Your task to perform on an android device: uninstall "Instagram" Image 0: 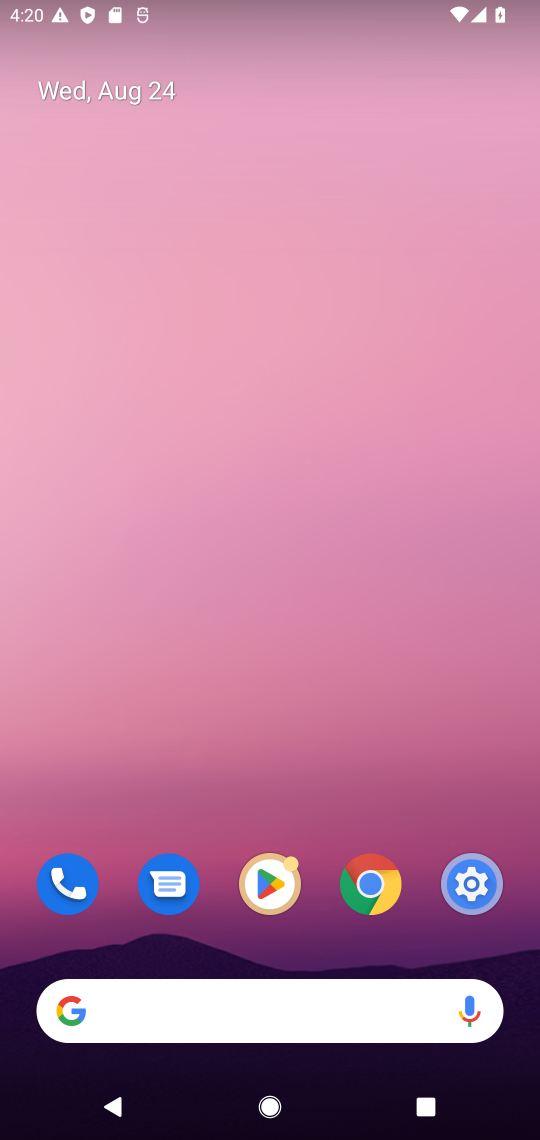
Step 0: click (268, 894)
Your task to perform on an android device: uninstall "Instagram" Image 1: 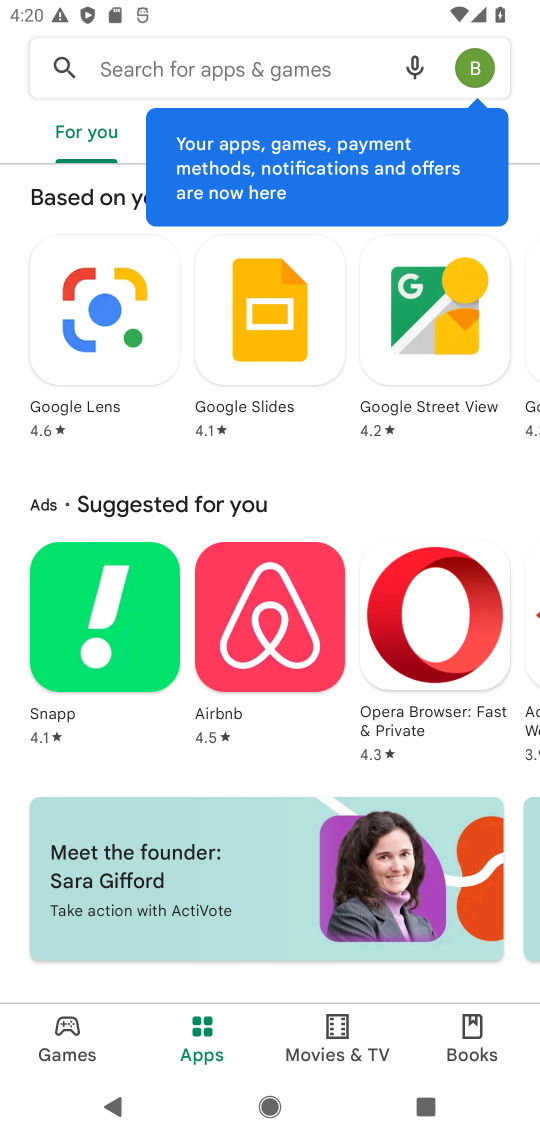
Step 1: click (234, 71)
Your task to perform on an android device: uninstall "Instagram" Image 2: 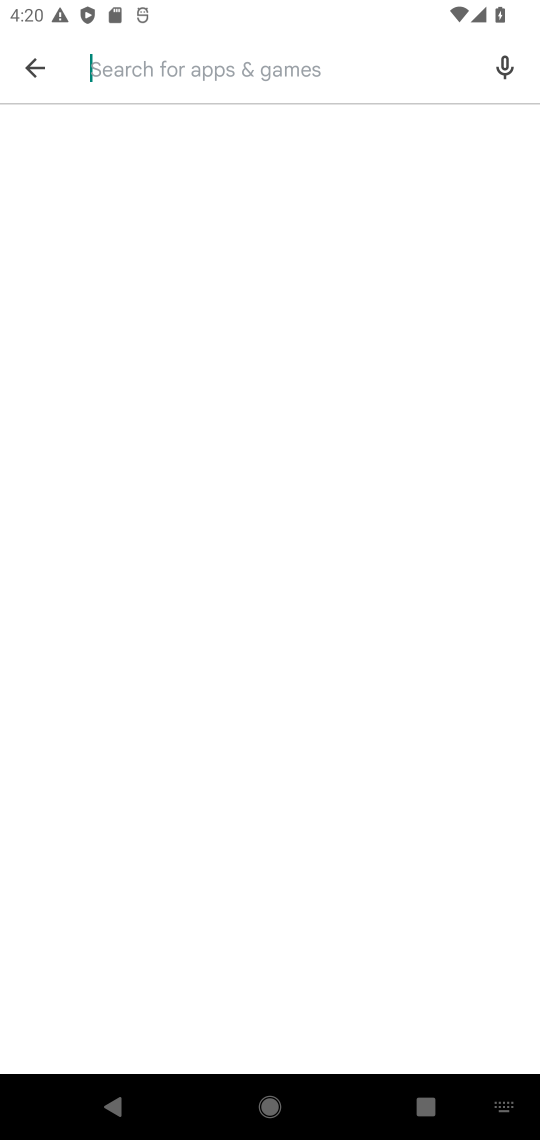
Step 2: type "Instagram"
Your task to perform on an android device: uninstall "Instagram" Image 3: 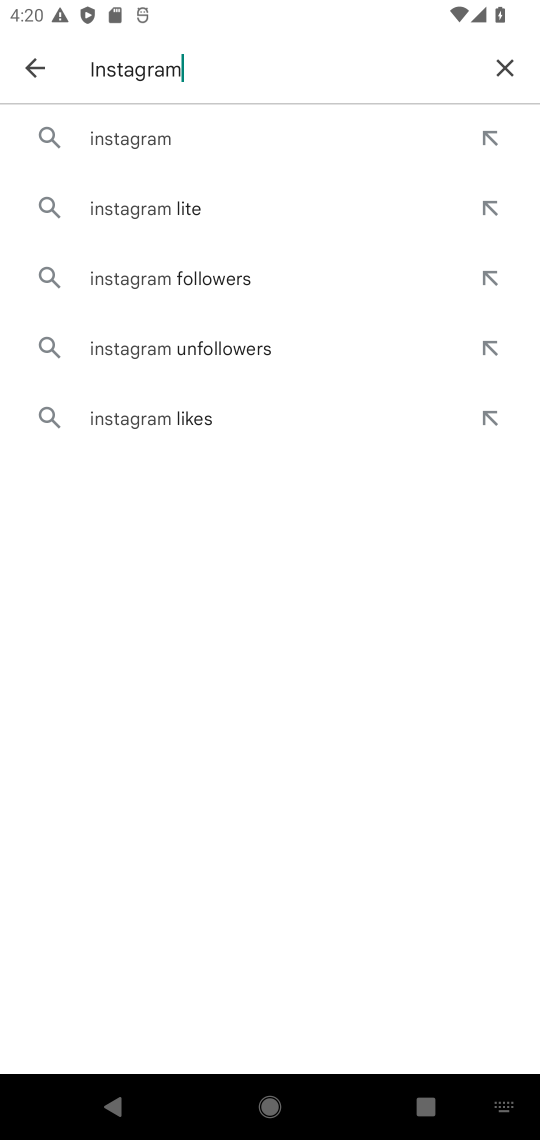
Step 3: click (123, 139)
Your task to perform on an android device: uninstall "Instagram" Image 4: 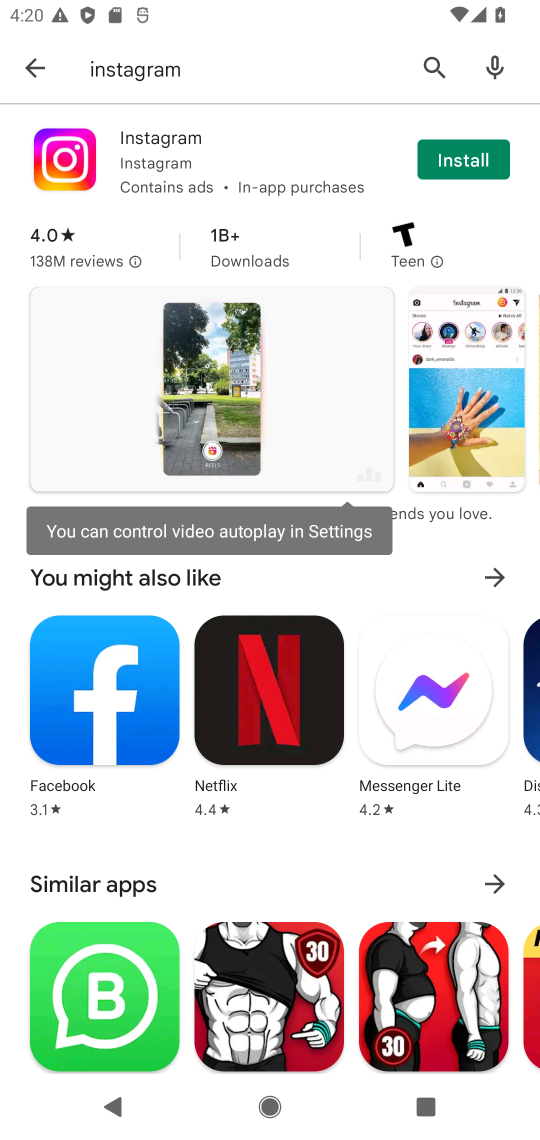
Step 4: click (440, 156)
Your task to perform on an android device: uninstall "Instagram" Image 5: 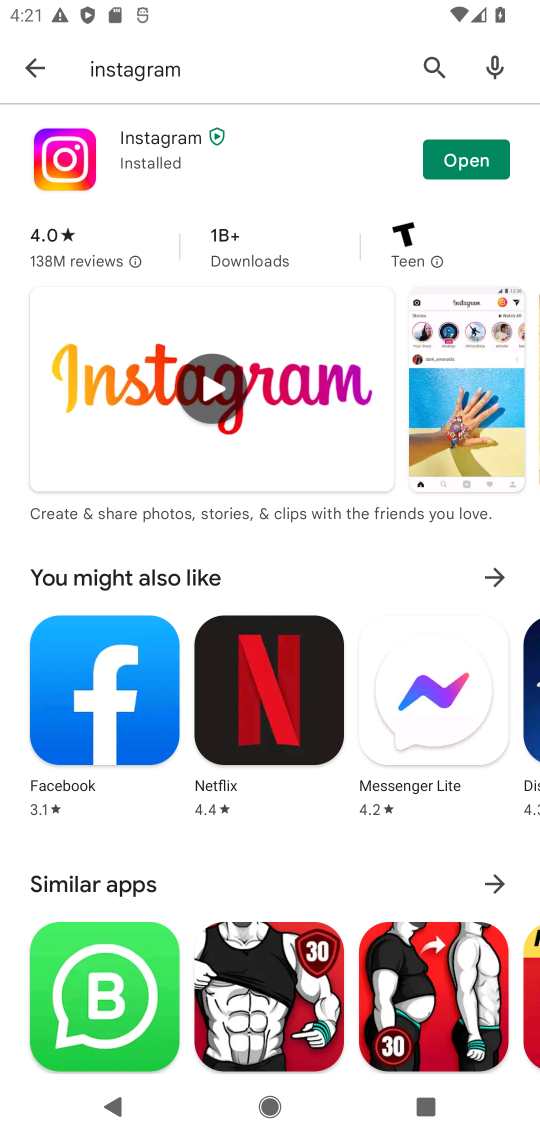
Step 5: click (125, 175)
Your task to perform on an android device: uninstall "Instagram" Image 6: 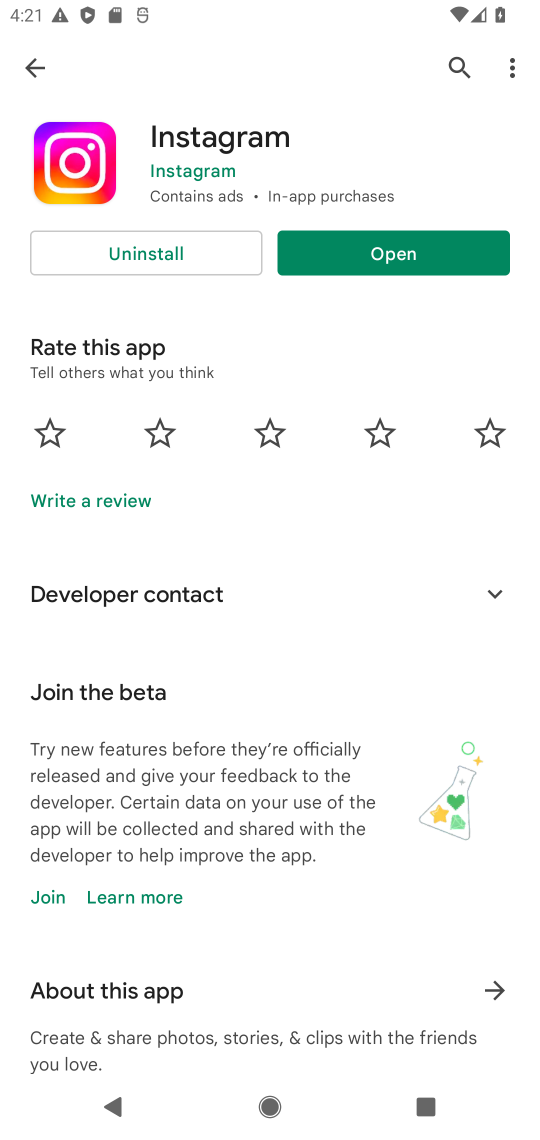
Step 6: click (113, 238)
Your task to perform on an android device: uninstall "Instagram" Image 7: 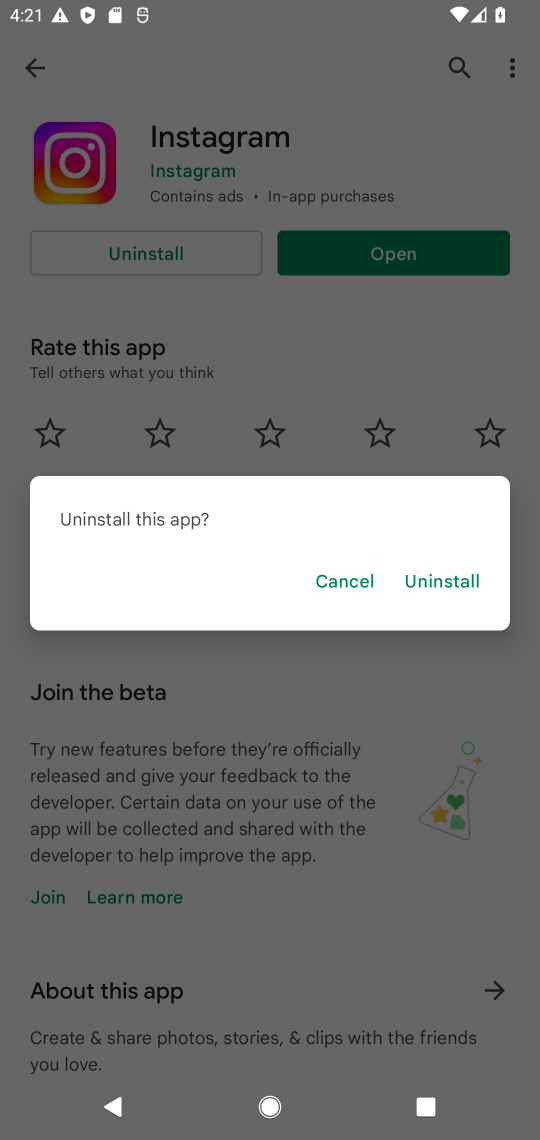
Step 7: click (427, 576)
Your task to perform on an android device: uninstall "Instagram" Image 8: 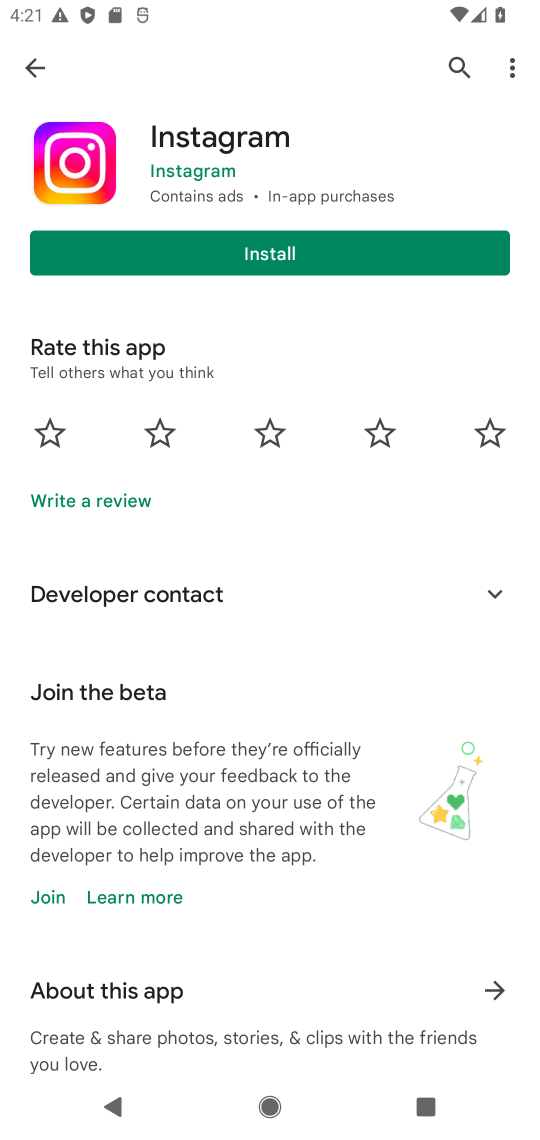
Step 8: task complete